Your task to perform on an android device: add a contact Image 0: 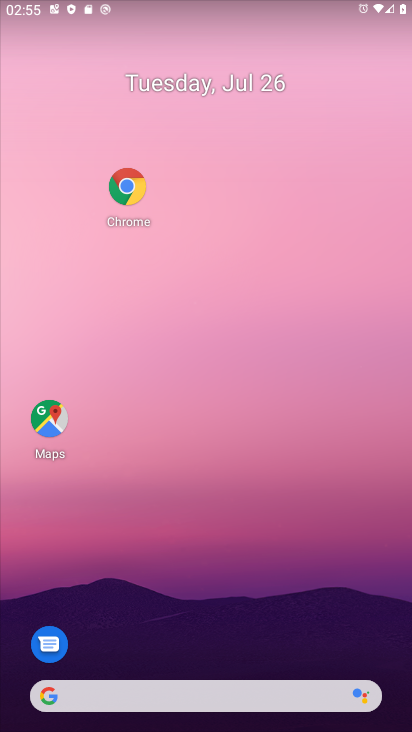
Step 0: drag from (250, 668) to (232, 305)
Your task to perform on an android device: add a contact Image 1: 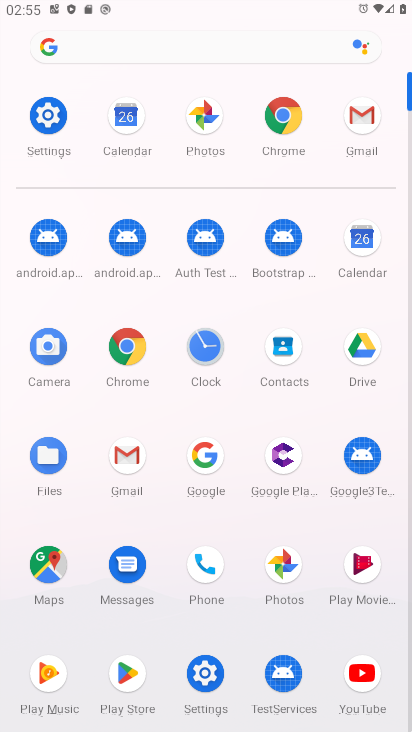
Step 1: click (209, 554)
Your task to perform on an android device: add a contact Image 2: 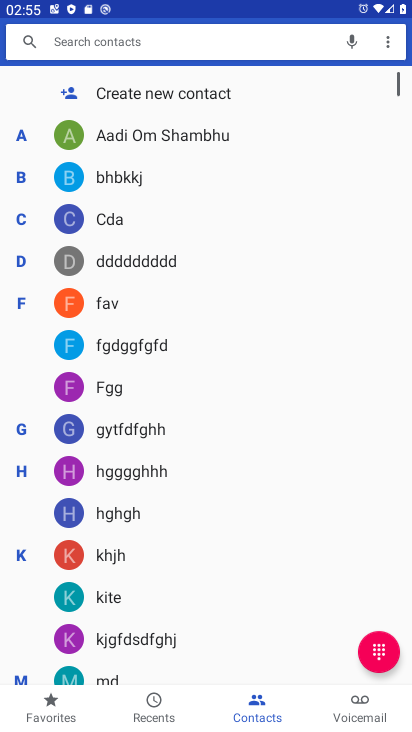
Step 2: click (208, 81)
Your task to perform on an android device: add a contact Image 3: 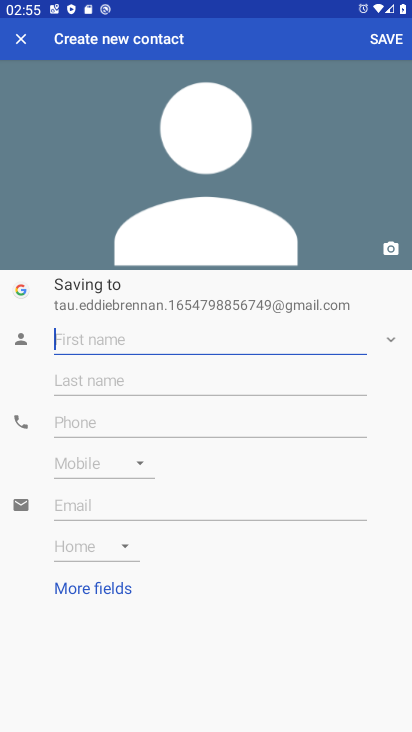
Step 3: click (134, 332)
Your task to perform on an android device: add a contact Image 4: 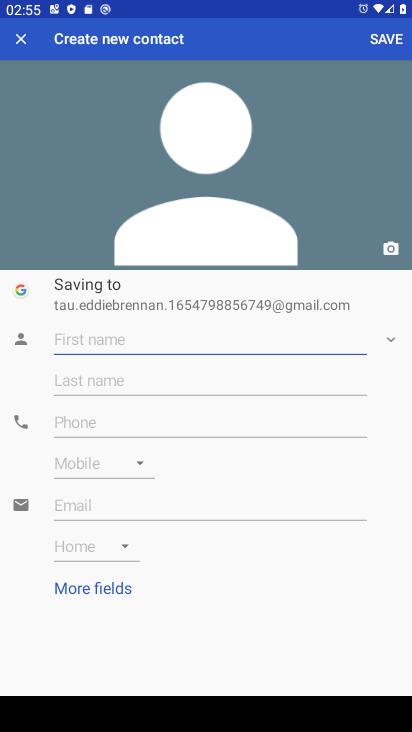
Step 4: type "jjhjhjhjjhhjhj "
Your task to perform on an android device: add a contact Image 5: 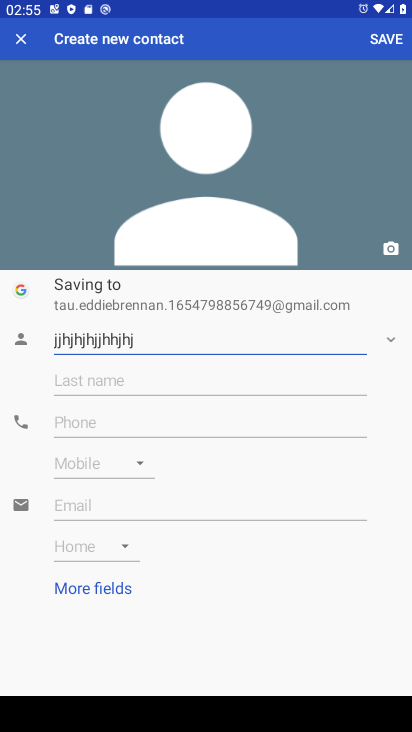
Step 5: click (139, 410)
Your task to perform on an android device: add a contact Image 6: 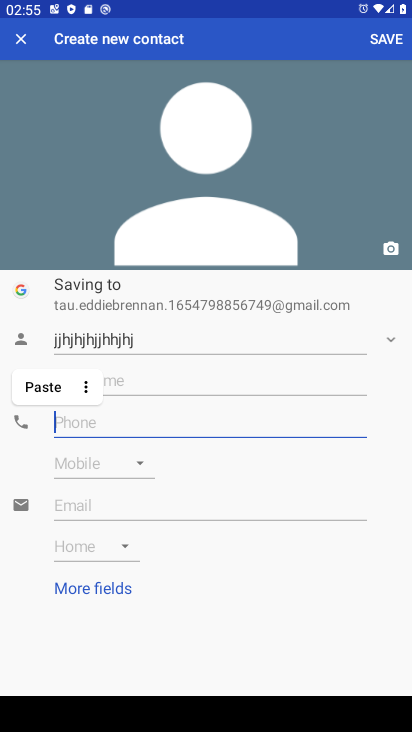
Step 6: type "878787878787 "
Your task to perform on an android device: add a contact Image 7: 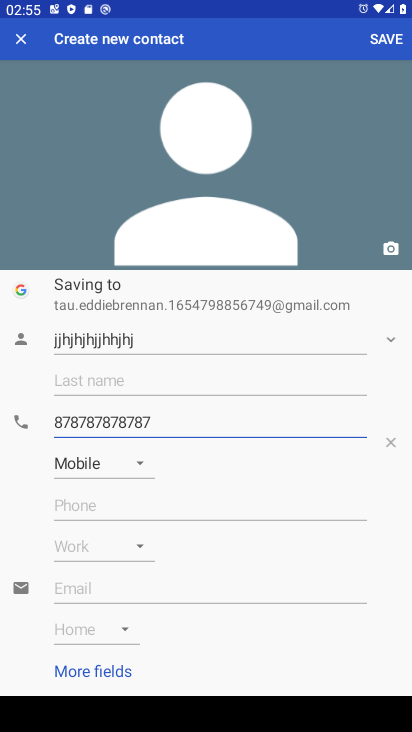
Step 7: click (404, 32)
Your task to perform on an android device: add a contact Image 8: 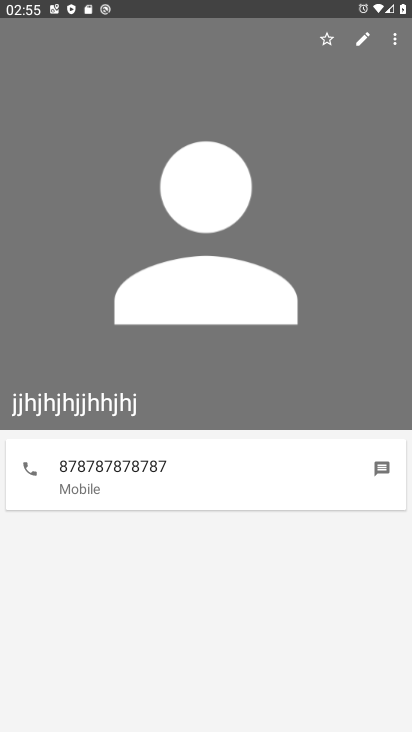
Step 8: task complete